Your task to perform on an android device: Go to battery settings Image 0: 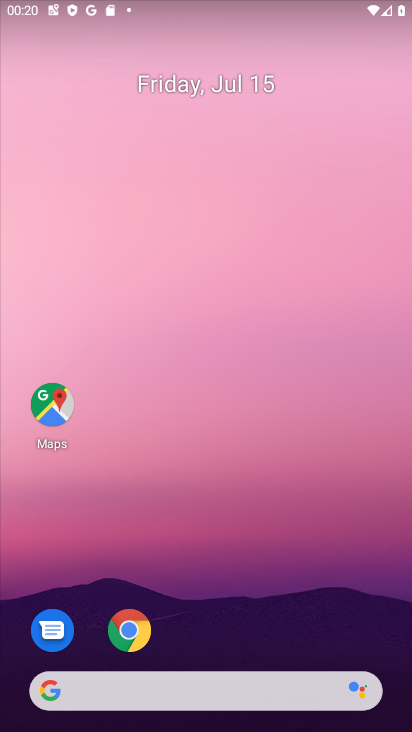
Step 0: drag from (297, 630) to (293, 423)
Your task to perform on an android device: Go to battery settings Image 1: 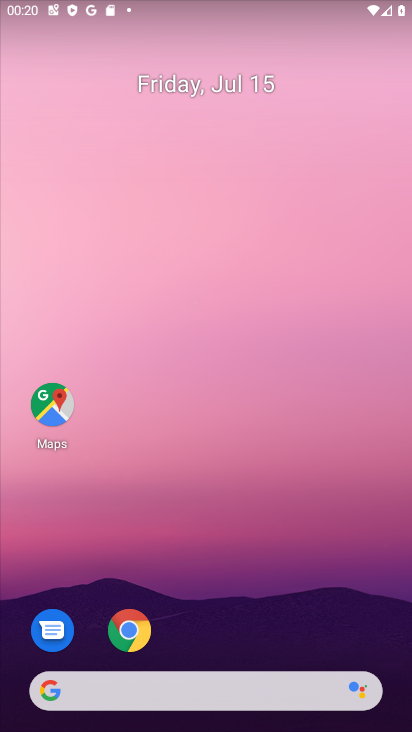
Step 1: drag from (292, 633) to (267, 214)
Your task to perform on an android device: Go to battery settings Image 2: 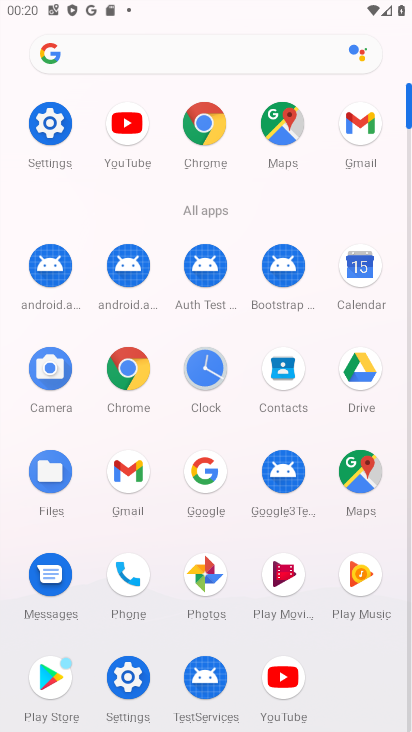
Step 2: click (68, 122)
Your task to perform on an android device: Go to battery settings Image 3: 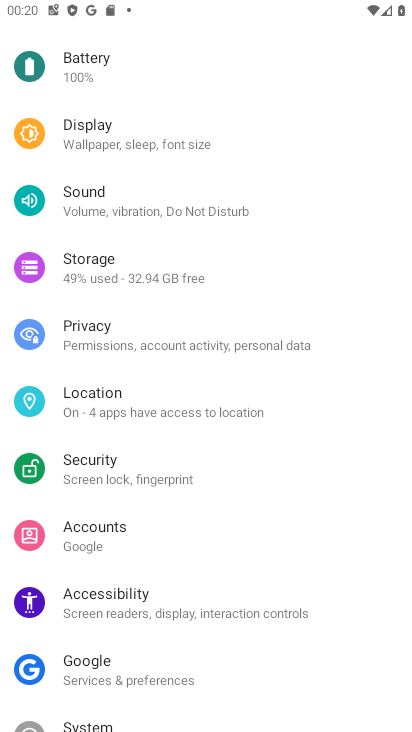
Step 3: click (130, 65)
Your task to perform on an android device: Go to battery settings Image 4: 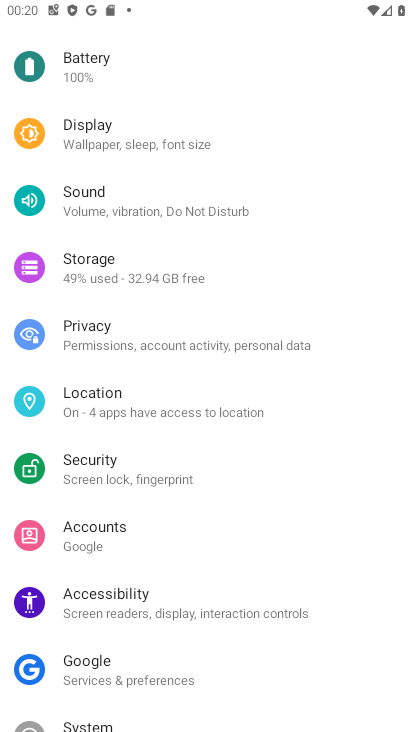
Step 4: task complete